Your task to perform on an android device: turn on airplane mode Image 0: 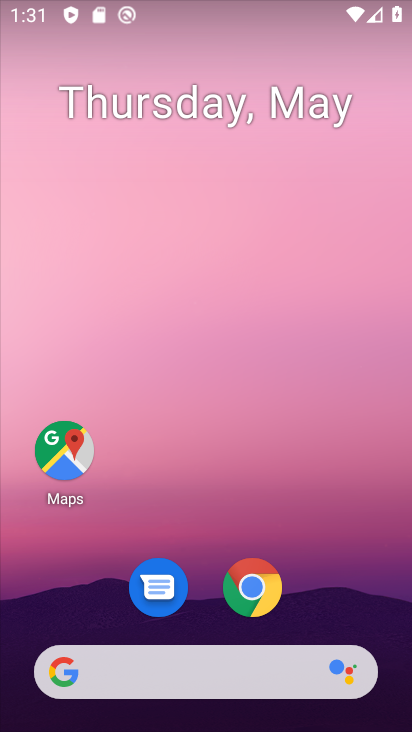
Step 0: drag from (329, 544) to (198, 45)
Your task to perform on an android device: turn on airplane mode Image 1: 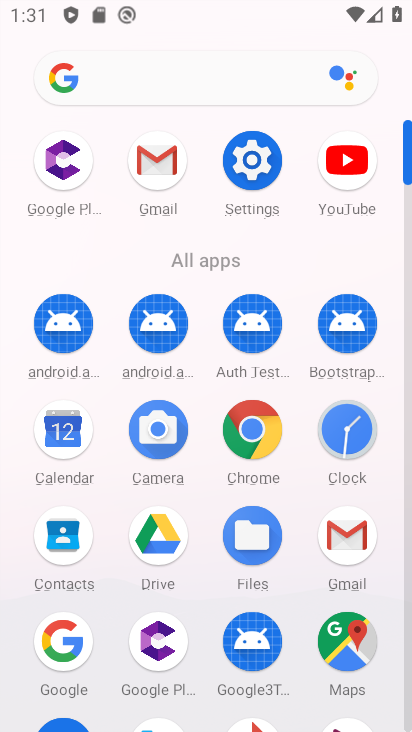
Step 1: click (258, 162)
Your task to perform on an android device: turn on airplane mode Image 2: 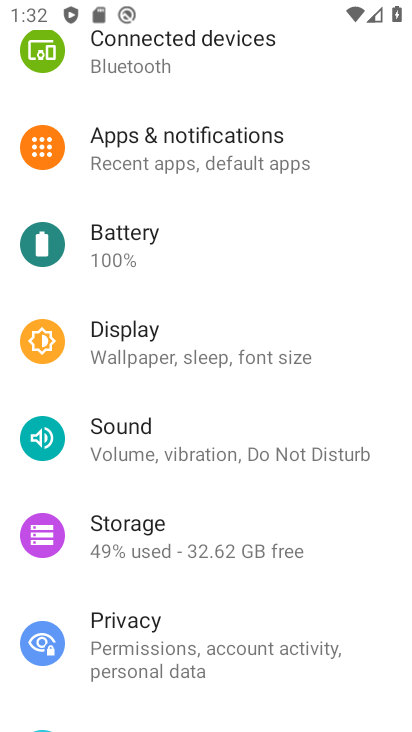
Step 2: drag from (187, 233) to (178, 599)
Your task to perform on an android device: turn on airplane mode Image 3: 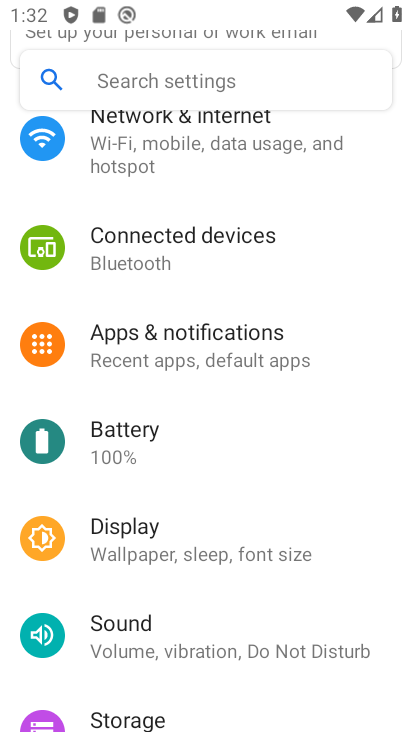
Step 3: drag from (212, 300) to (205, 682)
Your task to perform on an android device: turn on airplane mode Image 4: 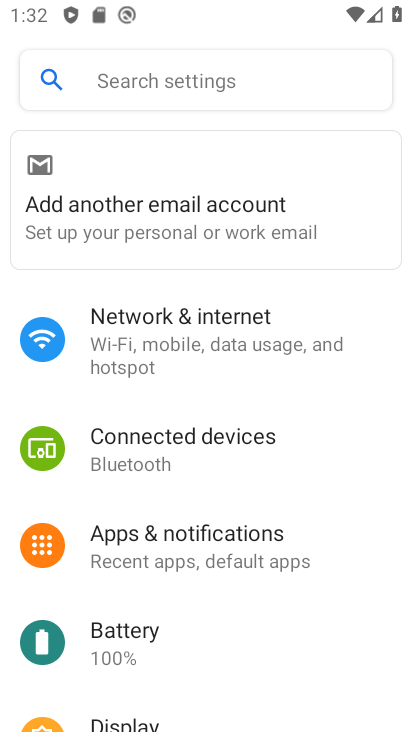
Step 4: click (185, 325)
Your task to perform on an android device: turn on airplane mode Image 5: 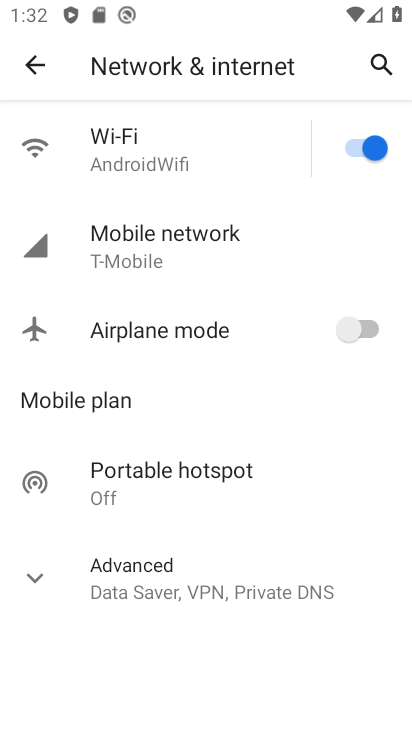
Step 5: click (346, 328)
Your task to perform on an android device: turn on airplane mode Image 6: 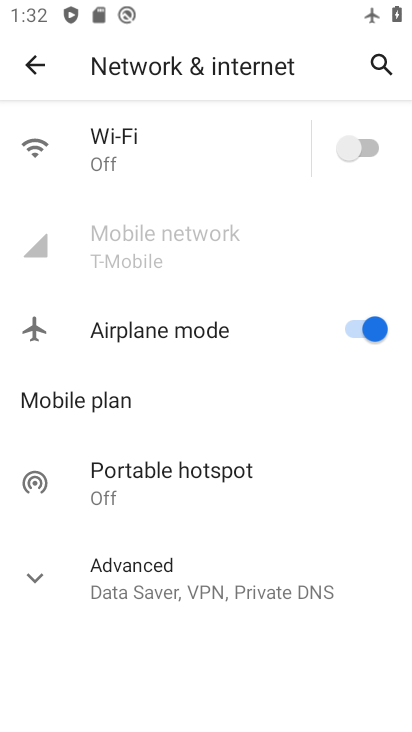
Step 6: task complete